Your task to perform on an android device: Go to privacy settings Image 0: 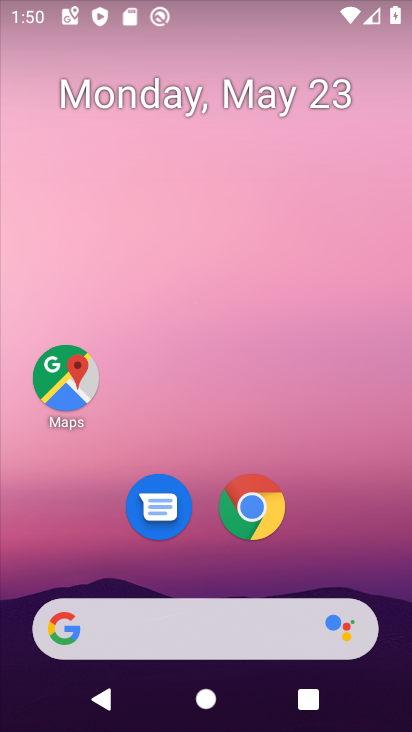
Step 0: drag from (227, 725) to (229, 99)
Your task to perform on an android device: Go to privacy settings Image 1: 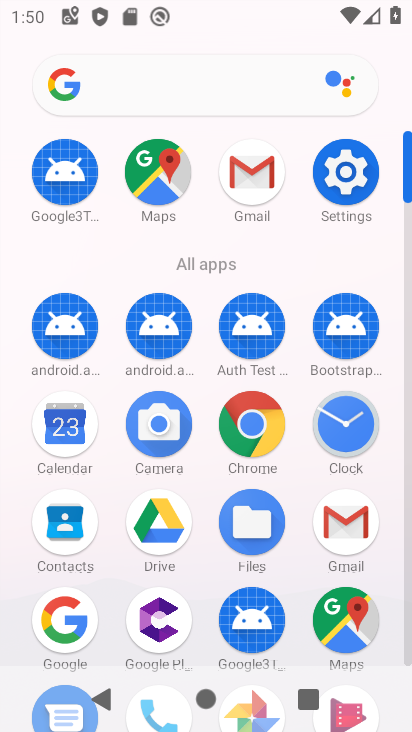
Step 1: click (352, 165)
Your task to perform on an android device: Go to privacy settings Image 2: 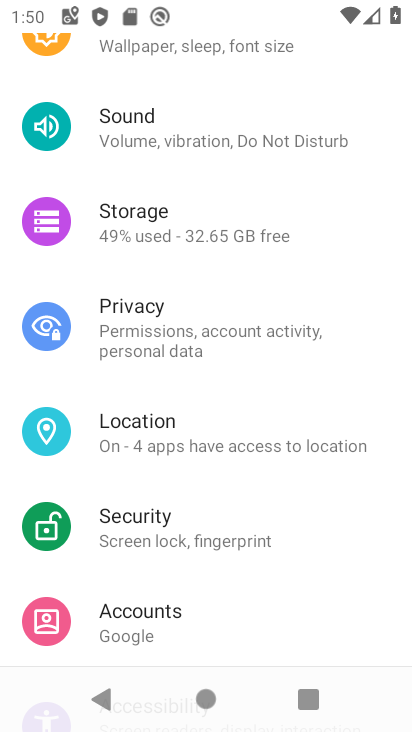
Step 2: click (125, 328)
Your task to perform on an android device: Go to privacy settings Image 3: 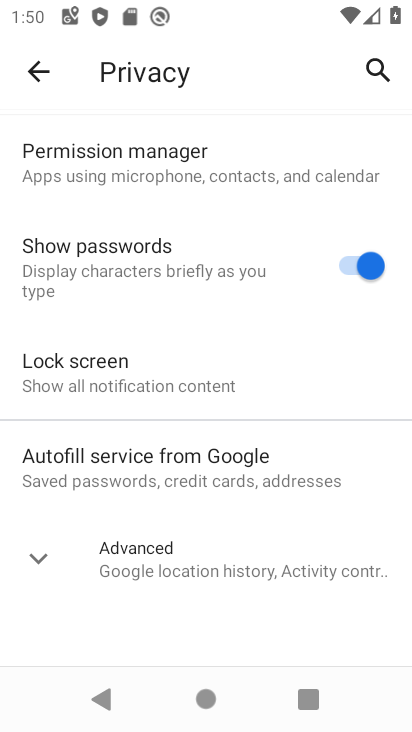
Step 3: task complete